Your task to perform on an android device: Open the stopwatch Image 0: 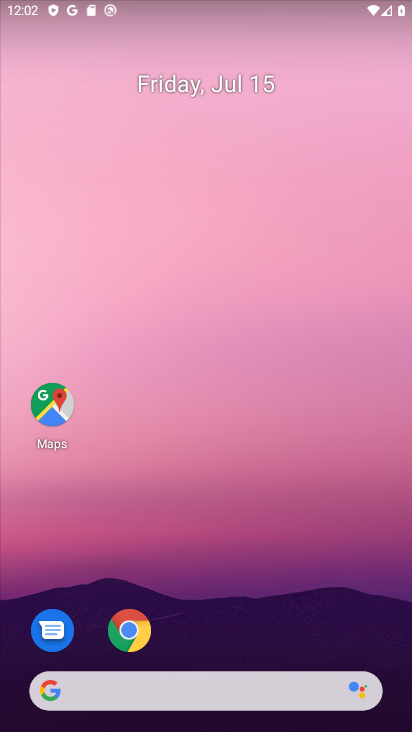
Step 0: drag from (294, 602) to (323, 22)
Your task to perform on an android device: Open the stopwatch Image 1: 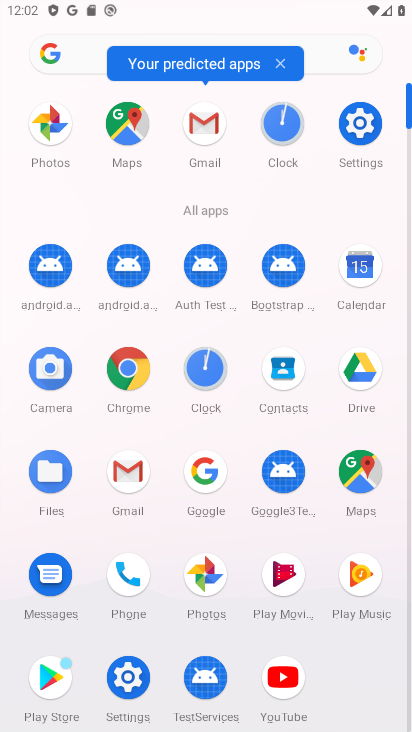
Step 1: click (297, 154)
Your task to perform on an android device: Open the stopwatch Image 2: 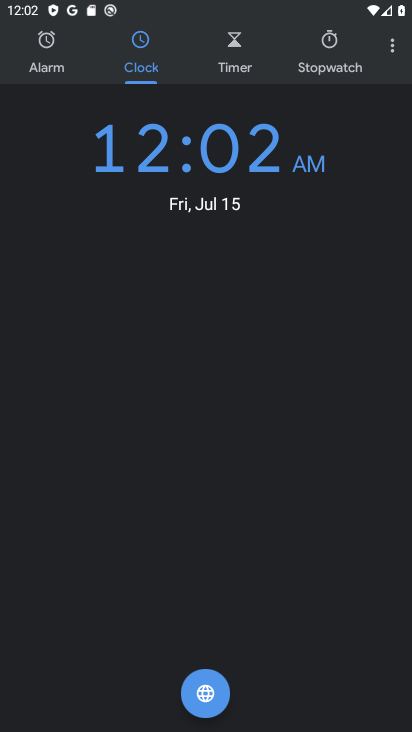
Step 2: click (319, 56)
Your task to perform on an android device: Open the stopwatch Image 3: 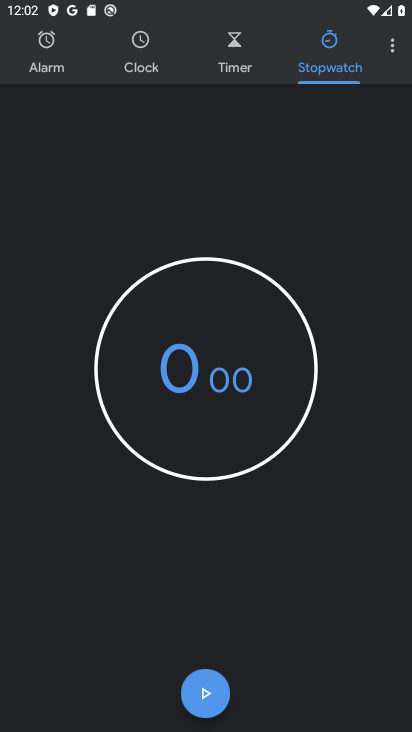
Step 3: task complete